Your task to perform on an android device: turn on showing notifications on the lock screen Image 0: 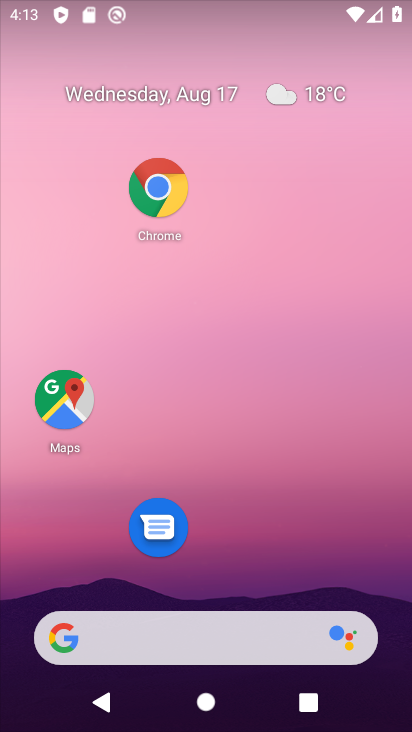
Step 0: drag from (209, 582) to (194, 175)
Your task to perform on an android device: turn on showing notifications on the lock screen Image 1: 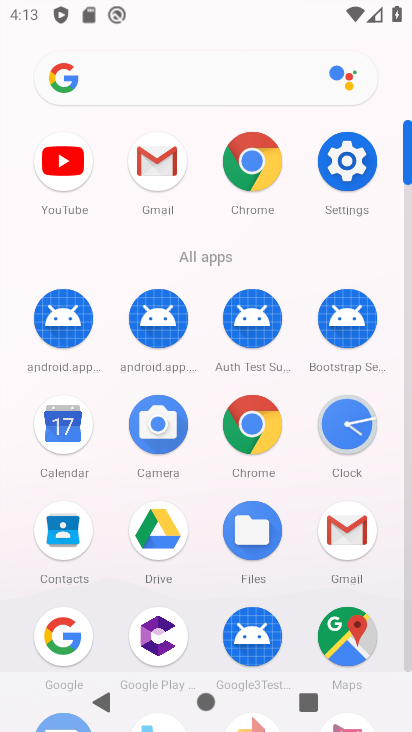
Step 1: click (347, 163)
Your task to perform on an android device: turn on showing notifications on the lock screen Image 2: 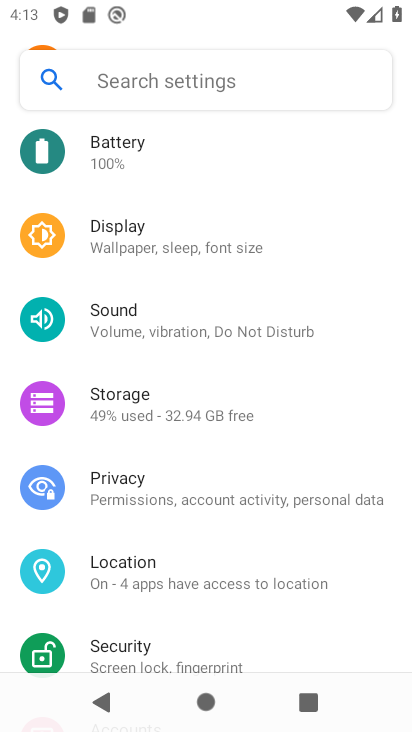
Step 2: drag from (211, 184) to (214, 566)
Your task to perform on an android device: turn on showing notifications on the lock screen Image 3: 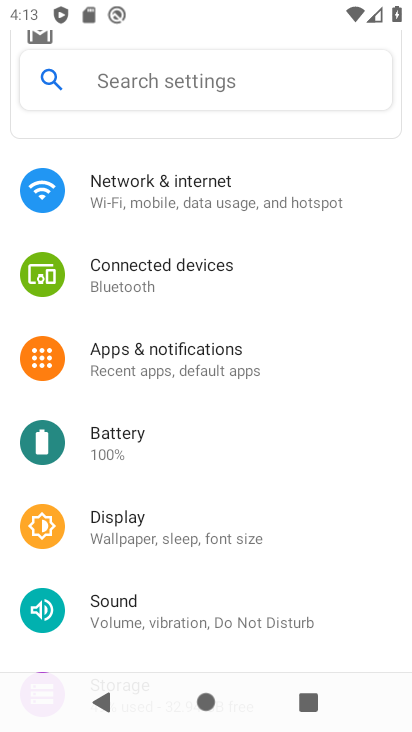
Step 3: click (140, 227)
Your task to perform on an android device: turn on showing notifications on the lock screen Image 4: 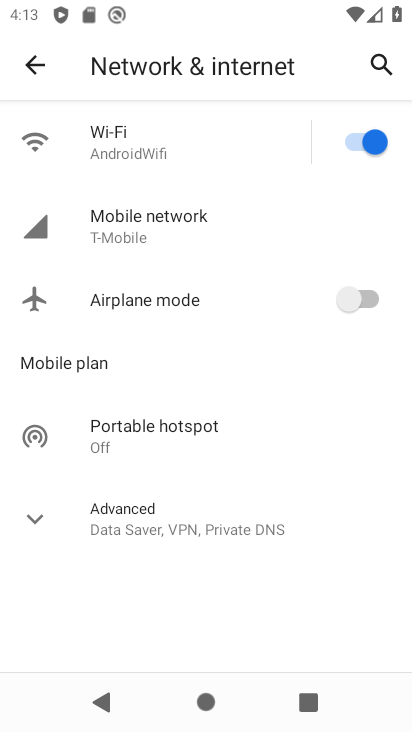
Step 4: click (39, 68)
Your task to perform on an android device: turn on showing notifications on the lock screen Image 5: 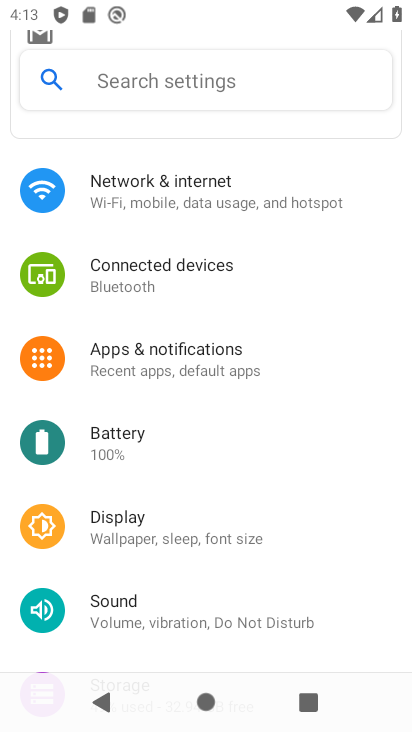
Step 5: click (239, 344)
Your task to perform on an android device: turn on showing notifications on the lock screen Image 6: 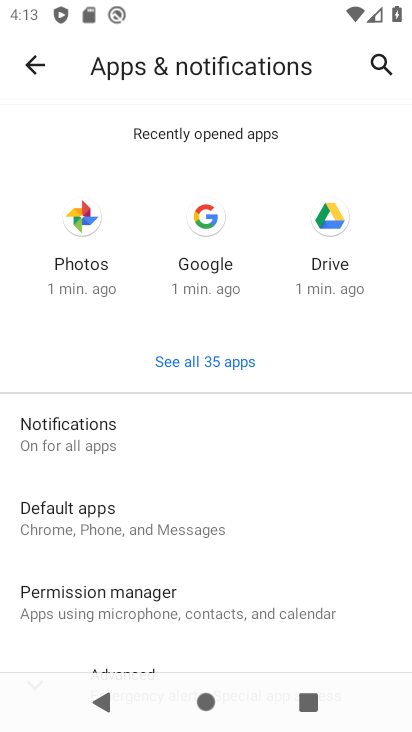
Step 6: click (168, 423)
Your task to perform on an android device: turn on showing notifications on the lock screen Image 7: 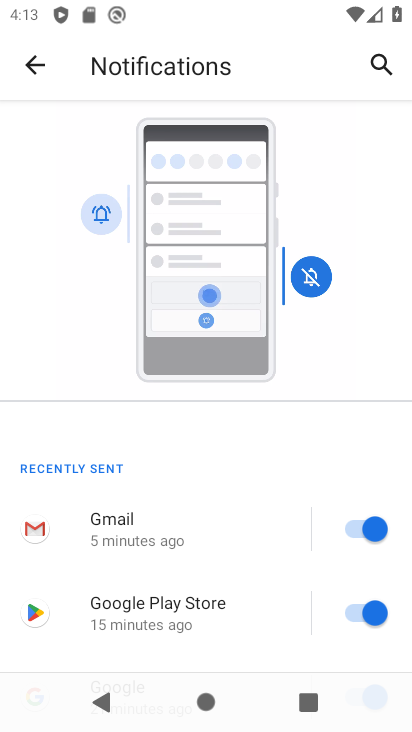
Step 7: drag from (213, 576) to (214, 154)
Your task to perform on an android device: turn on showing notifications on the lock screen Image 8: 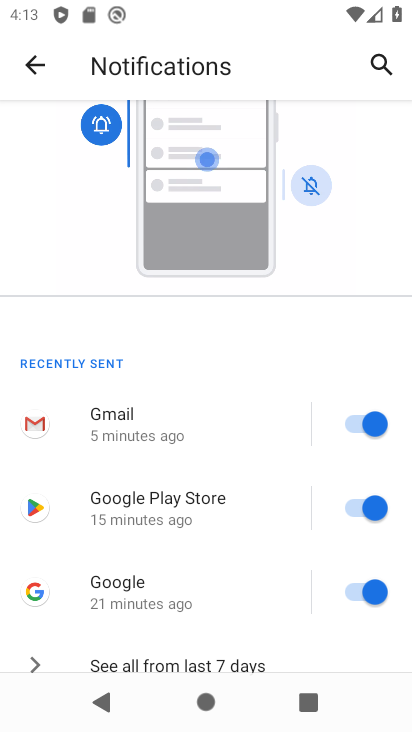
Step 8: drag from (93, 636) to (134, 10)
Your task to perform on an android device: turn on showing notifications on the lock screen Image 9: 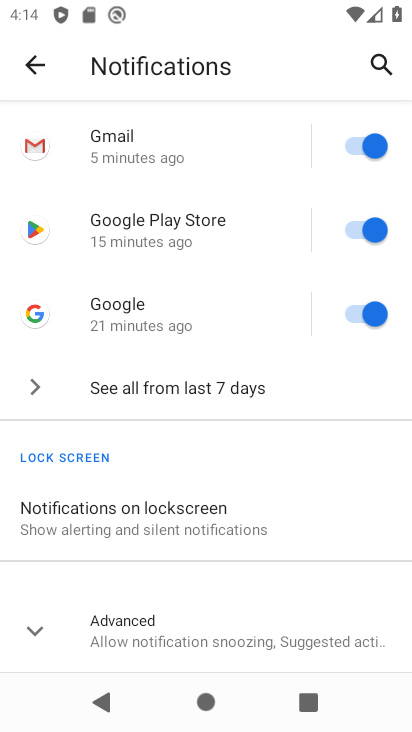
Step 9: click (47, 503)
Your task to perform on an android device: turn on showing notifications on the lock screen Image 10: 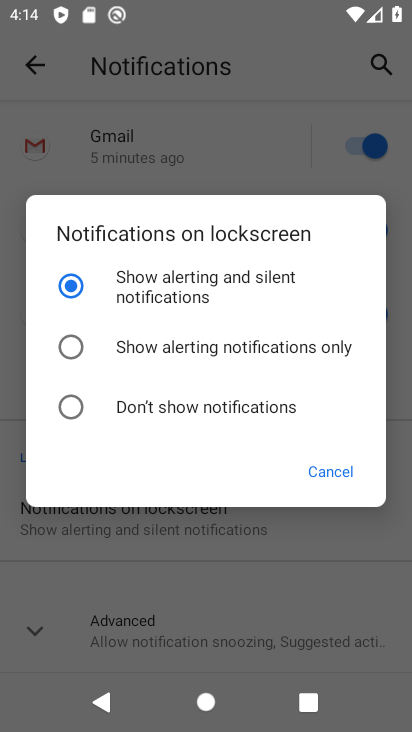
Step 10: task complete